Your task to perform on an android device: turn on the 12-hour format for clock Image 0: 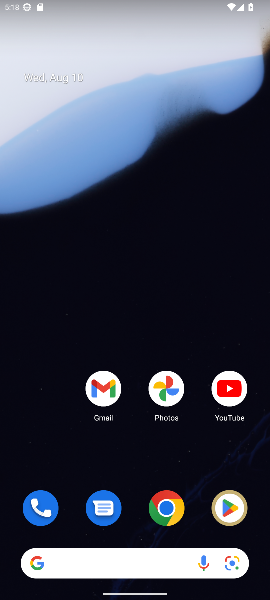
Step 0: press home button
Your task to perform on an android device: turn on the 12-hour format for clock Image 1: 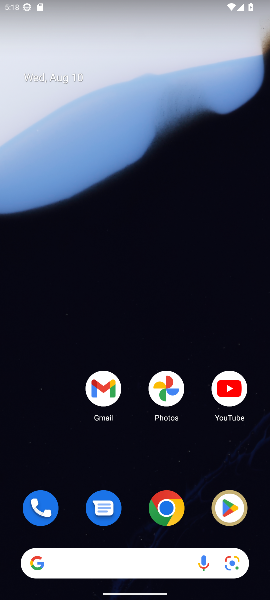
Step 1: drag from (137, 270) to (135, 0)
Your task to perform on an android device: turn on the 12-hour format for clock Image 2: 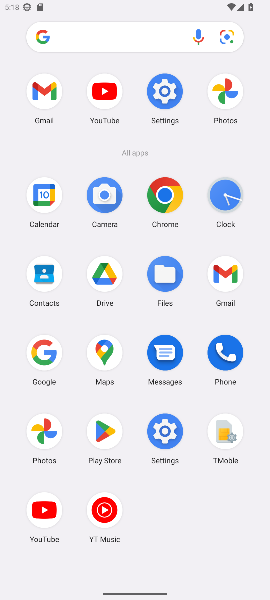
Step 2: click (220, 196)
Your task to perform on an android device: turn on the 12-hour format for clock Image 3: 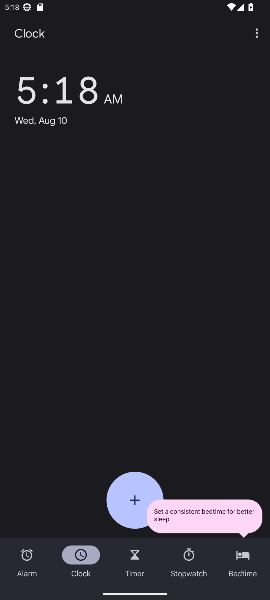
Step 3: click (257, 39)
Your task to perform on an android device: turn on the 12-hour format for clock Image 4: 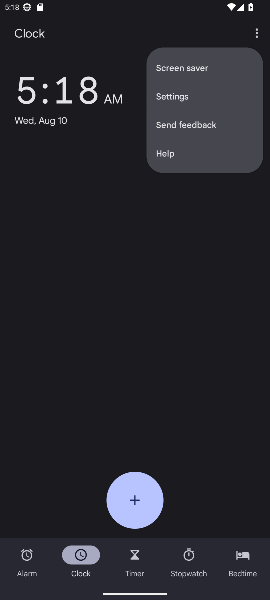
Step 4: click (187, 94)
Your task to perform on an android device: turn on the 12-hour format for clock Image 5: 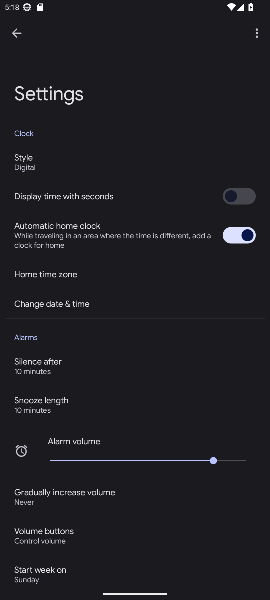
Step 5: click (23, 302)
Your task to perform on an android device: turn on the 12-hour format for clock Image 6: 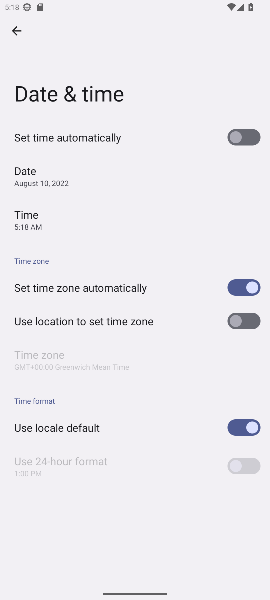
Step 6: click (251, 469)
Your task to perform on an android device: turn on the 12-hour format for clock Image 7: 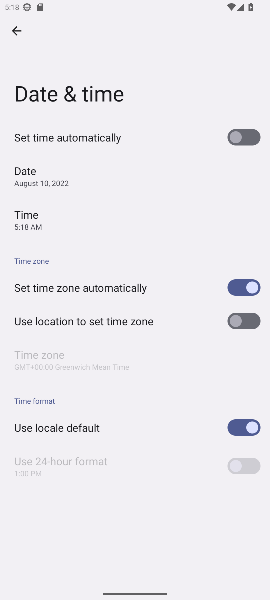
Step 7: click (235, 424)
Your task to perform on an android device: turn on the 12-hour format for clock Image 8: 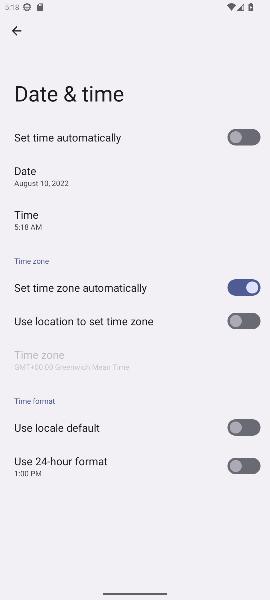
Step 8: click (241, 426)
Your task to perform on an android device: turn on the 12-hour format for clock Image 9: 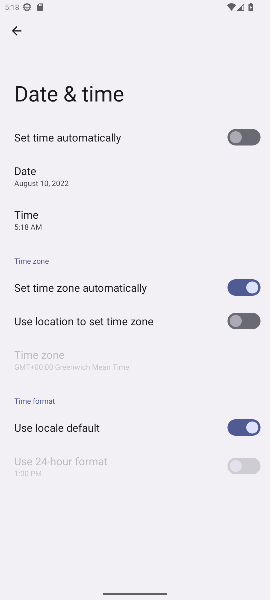
Step 9: task complete